Your task to perform on an android device: Open accessibility settings Image 0: 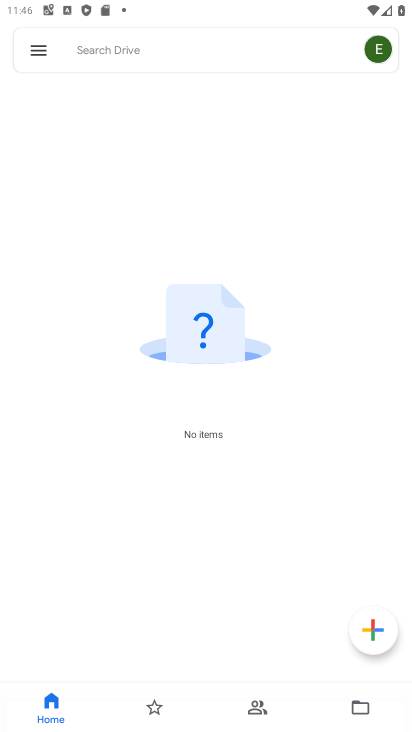
Step 0: press home button
Your task to perform on an android device: Open accessibility settings Image 1: 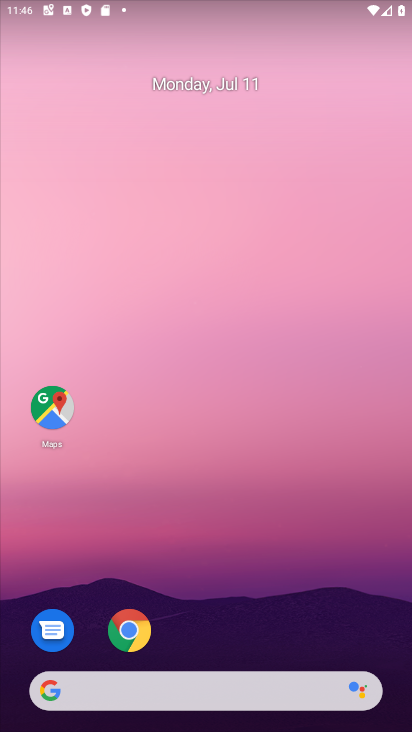
Step 1: drag from (317, 619) to (215, 118)
Your task to perform on an android device: Open accessibility settings Image 2: 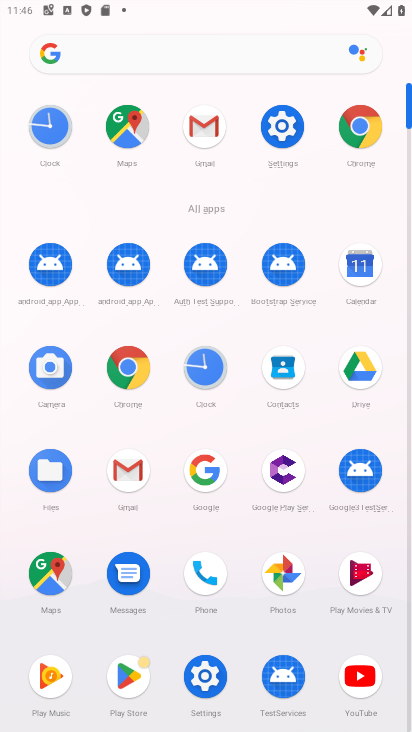
Step 2: click (203, 676)
Your task to perform on an android device: Open accessibility settings Image 3: 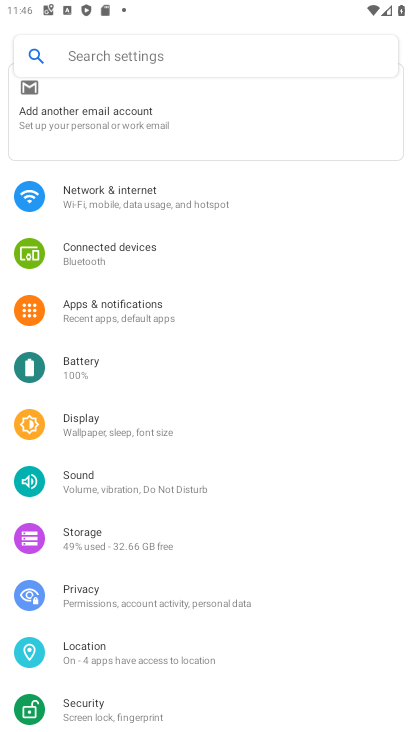
Step 3: drag from (278, 652) to (248, 262)
Your task to perform on an android device: Open accessibility settings Image 4: 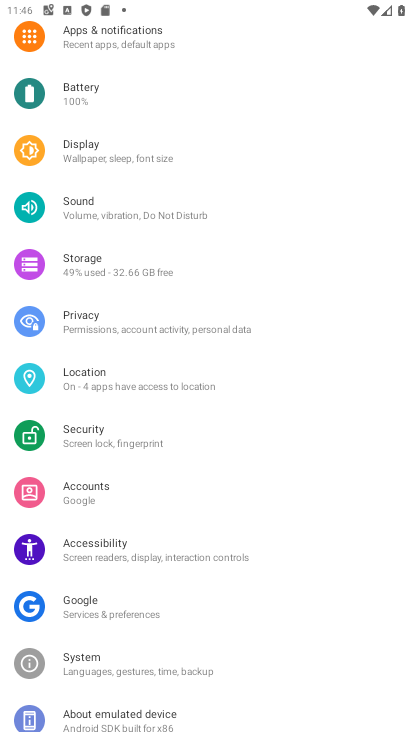
Step 4: click (91, 532)
Your task to perform on an android device: Open accessibility settings Image 5: 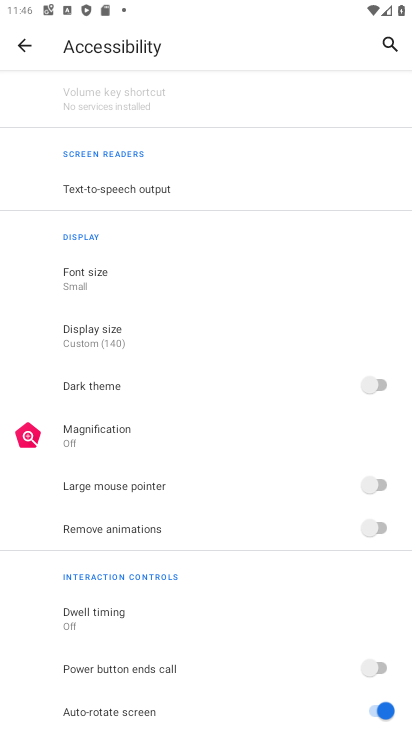
Step 5: task complete